Your task to perform on an android device: make emails show in primary in the gmail app Image 0: 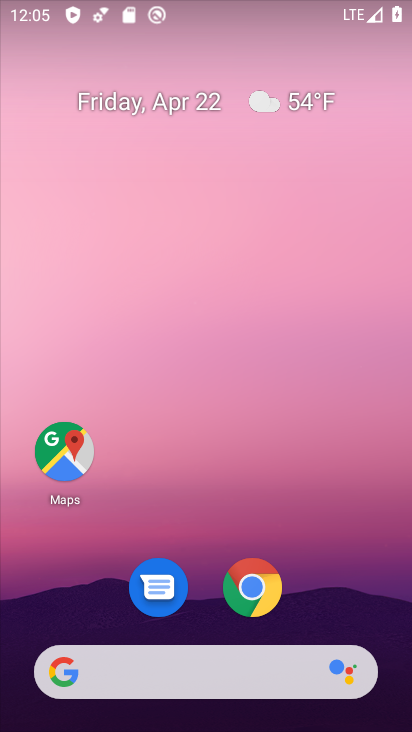
Step 0: drag from (204, 608) to (273, 108)
Your task to perform on an android device: make emails show in primary in the gmail app Image 1: 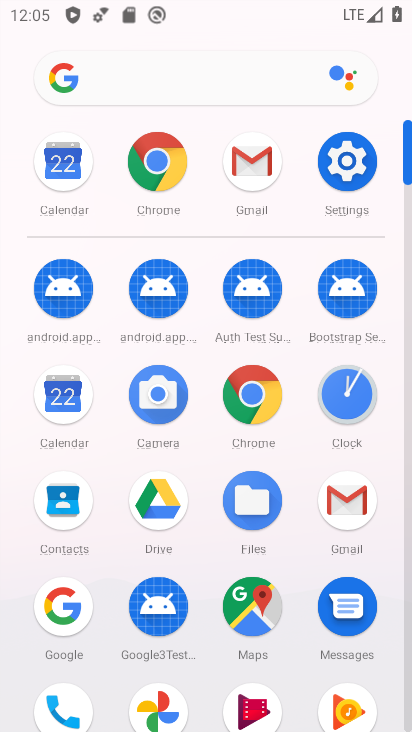
Step 1: click (247, 169)
Your task to perform on an android device: make emails show in primary in the gmail app Image 2: 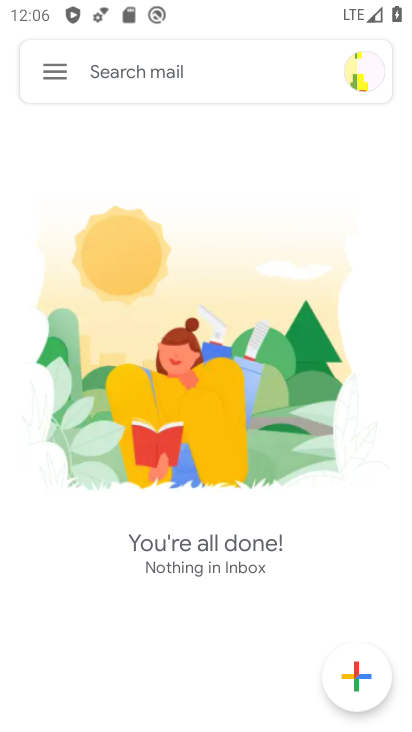
Step 2: click (42, 74)
Your task to perform on an android device: make emails show in primary in the gmail app Image 3: 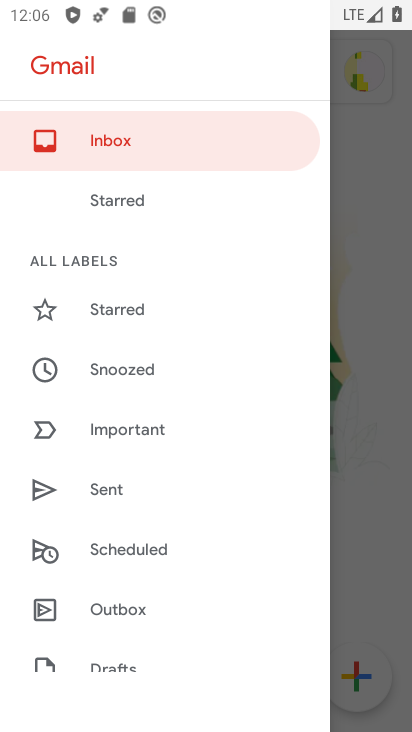
Step 3: drag from (217, 614) to (288, 18)
Your task to perform on an android device: make emails show in primary in the gmail app Image 4: 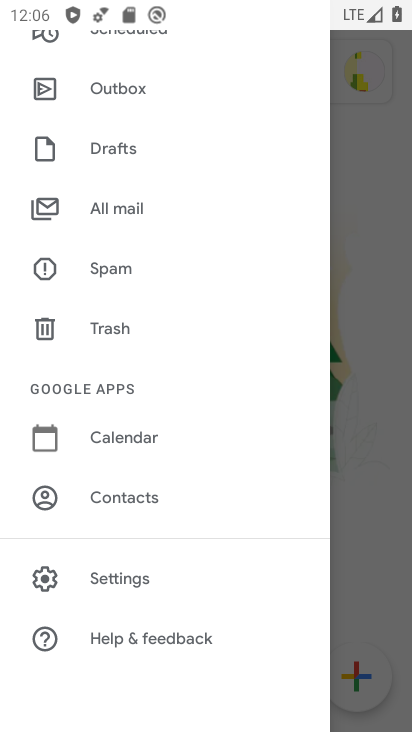
Step 4: click (127, 581)
Your task to perform on an android device: make emails show in primary in the gmail app Image 5: 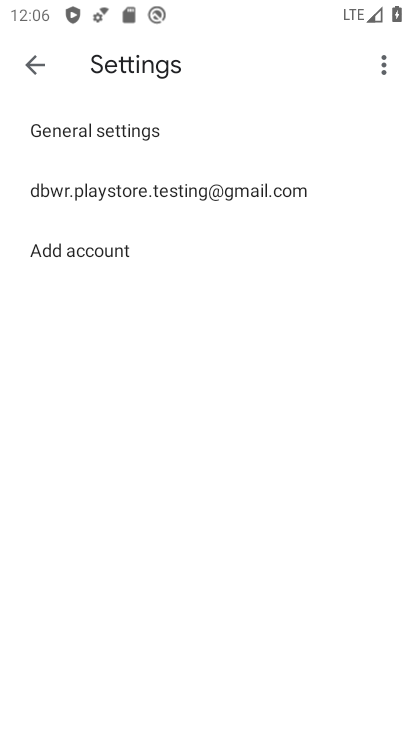
Step 5: click (155, 183)
Your task to perform on an android device: make emails show in primary in the gmail app Image 6: 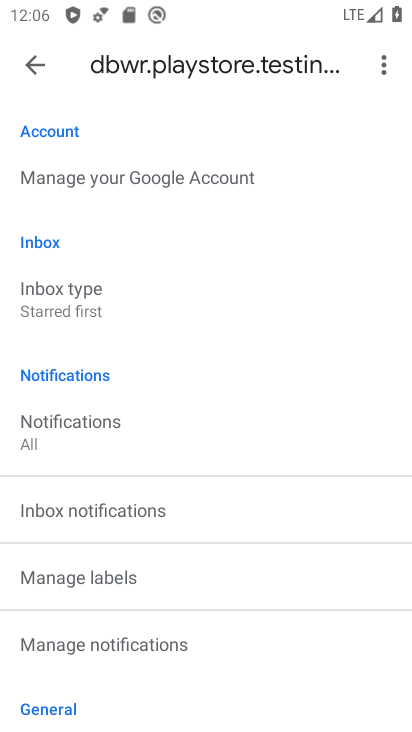
Step 6: task complete